Your task to perform on an android device: Open ESPN.com Image 0: 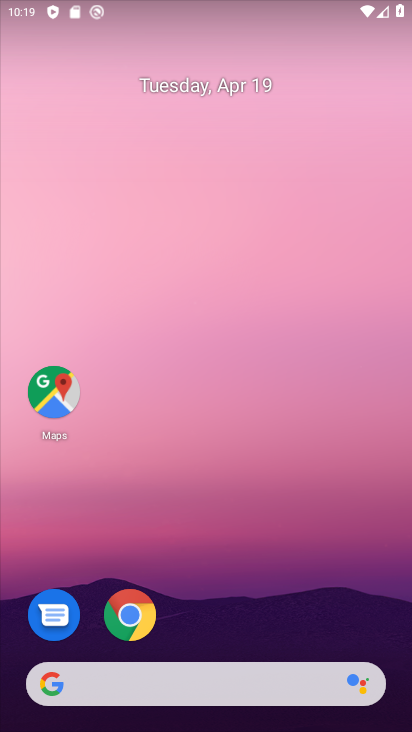
Step 0: drag from (250, 567) to (213, 119)
Your task to perform on an android device: Open ESPN.com Image 1: 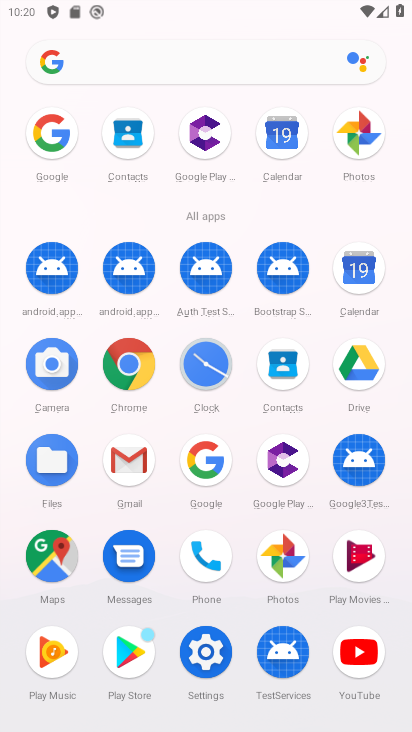
Step 1: click (53, 136)
Your task to perform on an android device: Open ESPN.com Image 2: 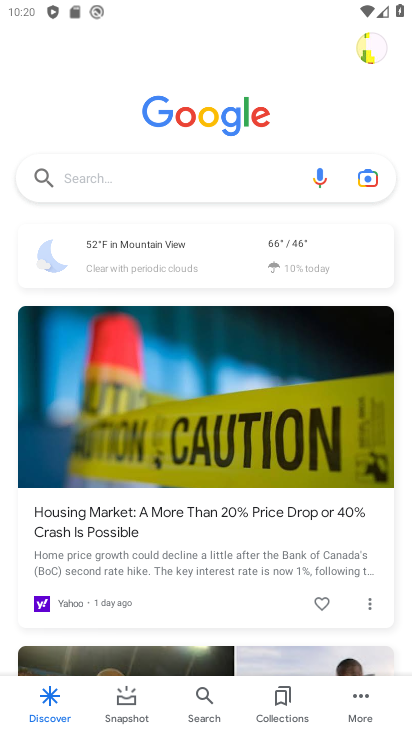
Step 2: click (140, 172)
Your task to perform on an android device: Open ESPN.com Image 3: 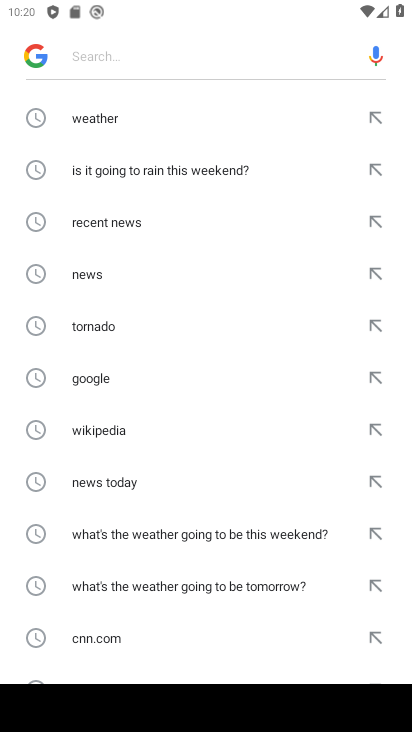
Step 3: type "espn.com"
Your task to perform on an android device: Open ESPN.com Image 4: 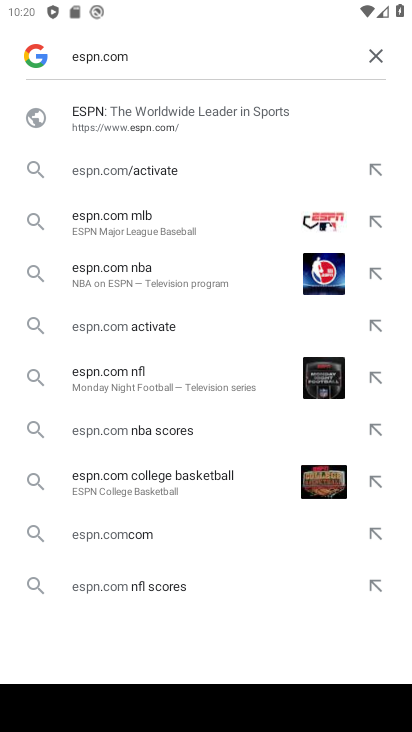
Step 4: click (128, 533)
Your task to perform on an android device: Open ESPN.com Image 5: 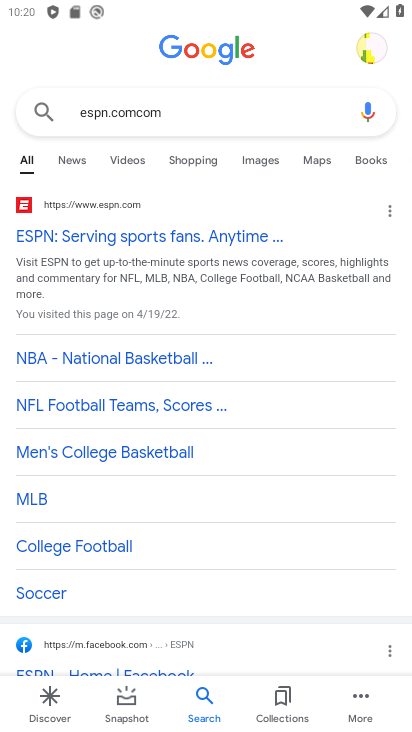
Step 5: task complete